Your task to perform on an android device: See recent photos Image 0: 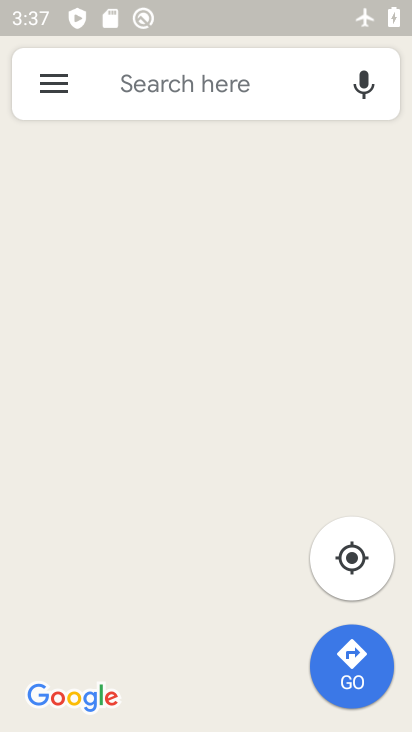
Step 0: drag from (385, 9) to (267, 613)
Your task to perform on an android device: See recent photos Image 1: 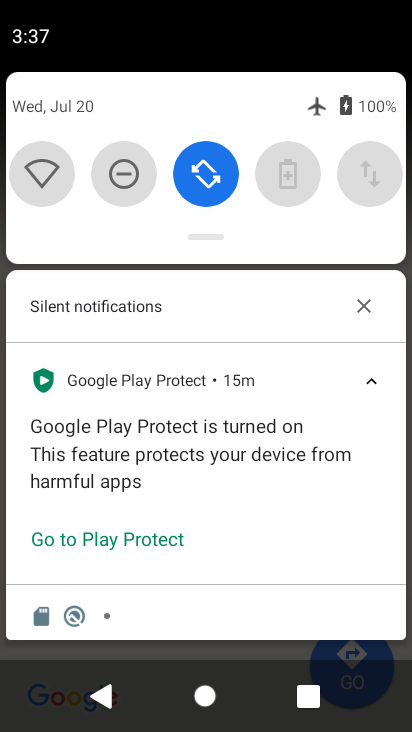
Step 1: drag from (202, 248) to (153, 668)
Your task to perform on an android device: See recent photos Image 2: 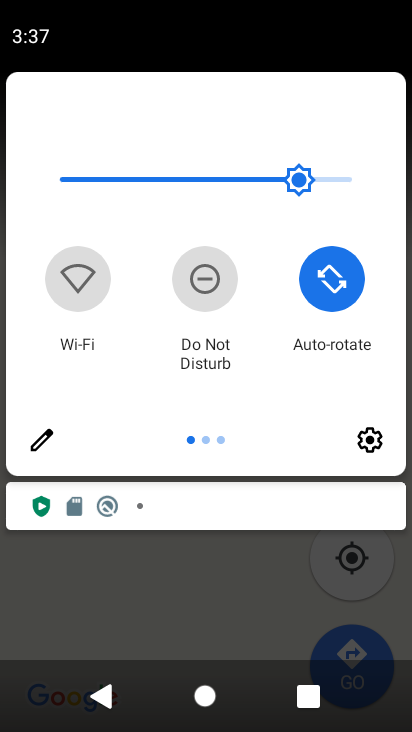
Step 2: press back button
Your task to perform on an android device: See recent photos Image 3: 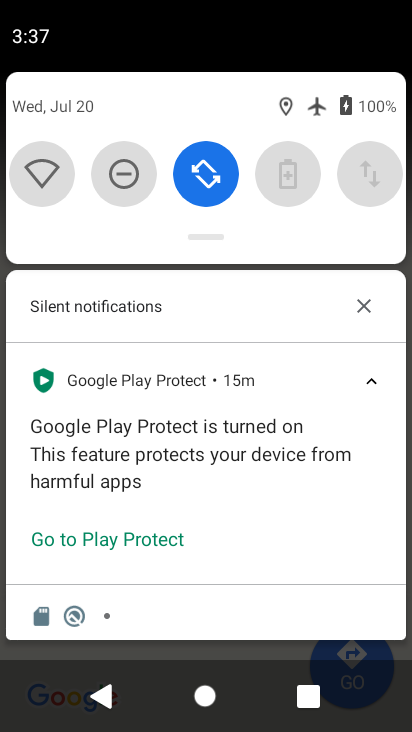
Step 3: press home button
Your task to perform on an android device: See recent photos Image 4: 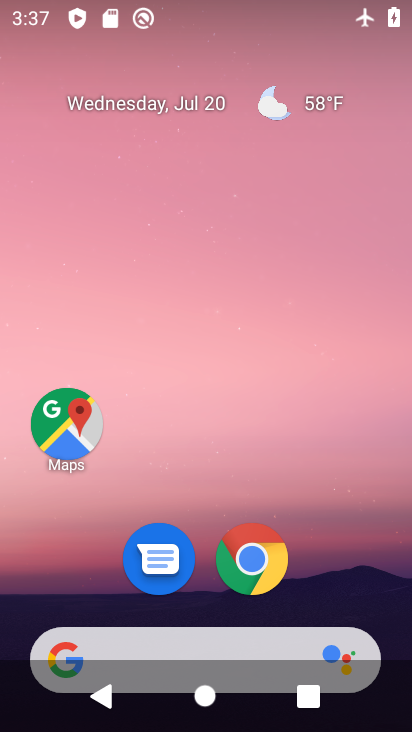
Step 4: drag from (67, 581) to (198, 4)
Your task to perform on an android device: See recent photos Image 5: 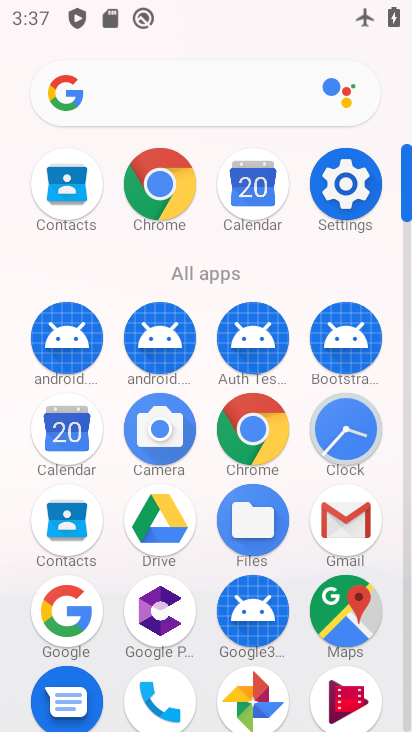
Step 5: click (258, 692)
Your task to perform on an android device: See recent photos Image 6: 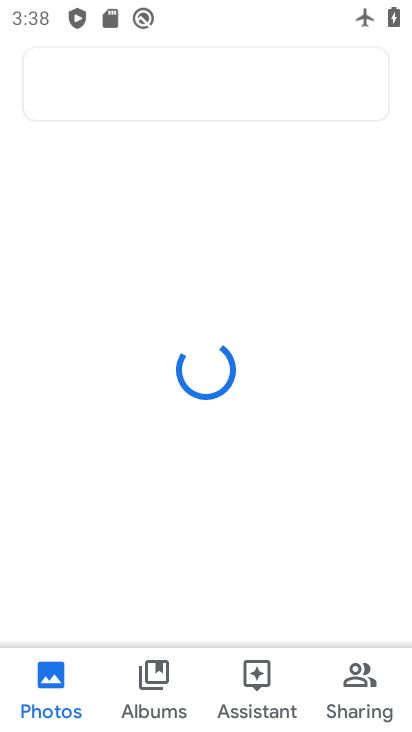
Step 6: click (46, 685)
Your task to perform on an android device: See recent photos Image 7: 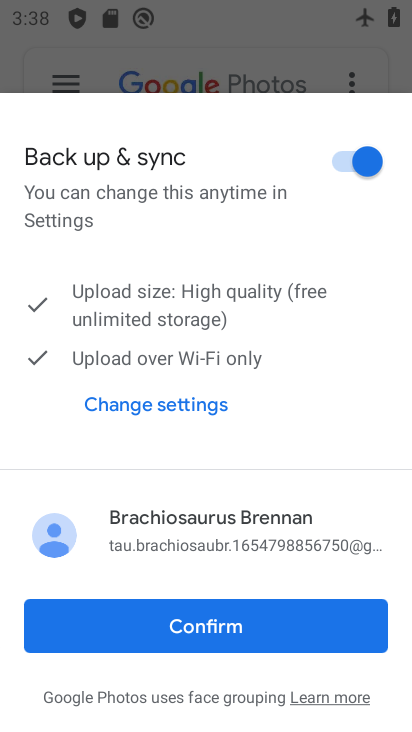
Step 7: click (178, 621)
Your task to perform on an android device: See recent photos Image 8: 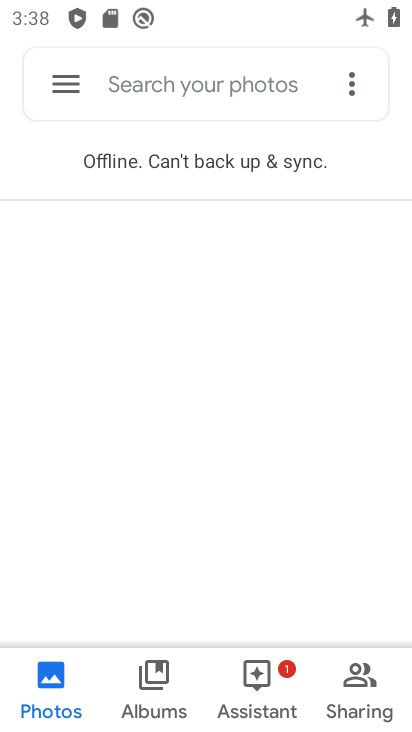
Step 8: task complete